Your task to perform on an android device: Clear the cart on ebay.com. Add "beats solo 3" to the cart on ebay.com, then select checkout. Image 0: 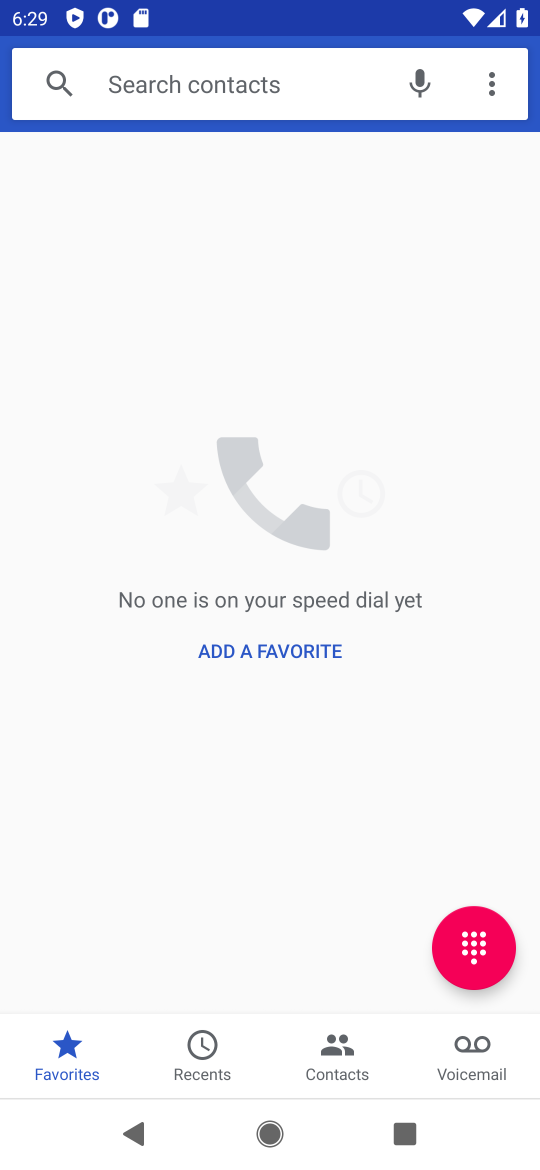
Step 0: press home button
Your task to perform on an android device: Clear the cart on ebay.com. Add "beats solo 3" to the cart on ebay.com, then select checkout. Image 1: 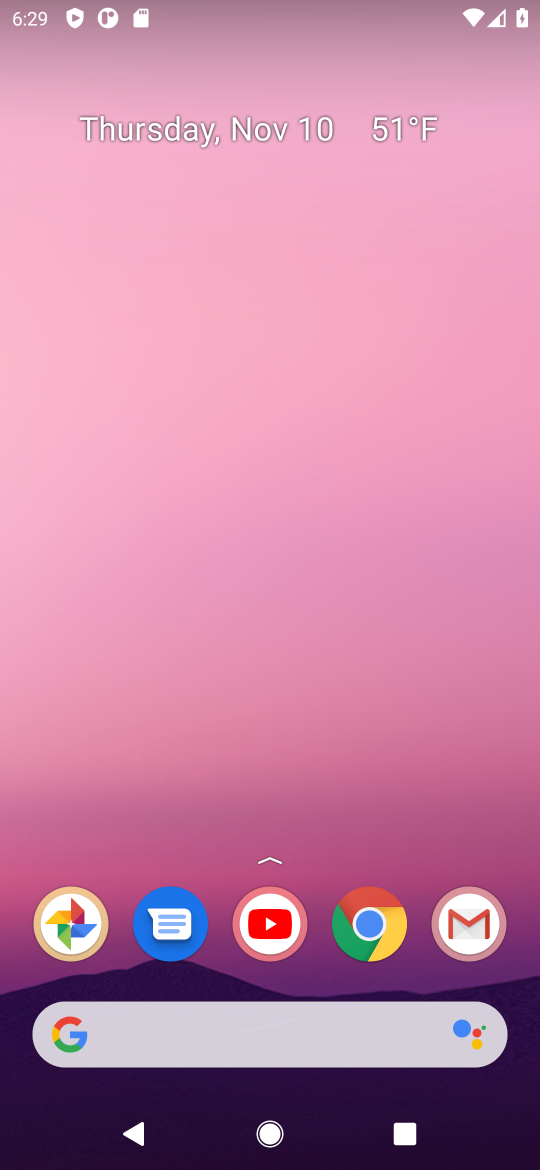
Step 1: click (379, 938)
Your task to perform on an android device: Clear the cart on ebay.com. Add "beats solo 3" to the cart on ebay.com, then select checkout. Image 2: 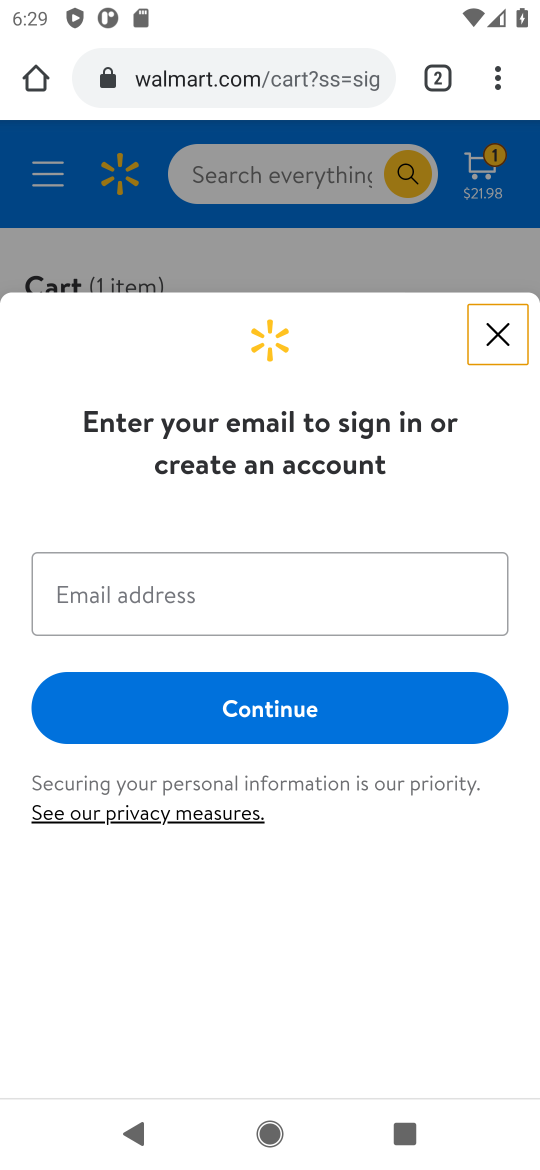
Step 2: click (212, 92)
Your task to perform on an android device: Clear the cart on ebay.com. Add "beats solo 3" to the cart on ebay.com, then select checkout. Image 3: 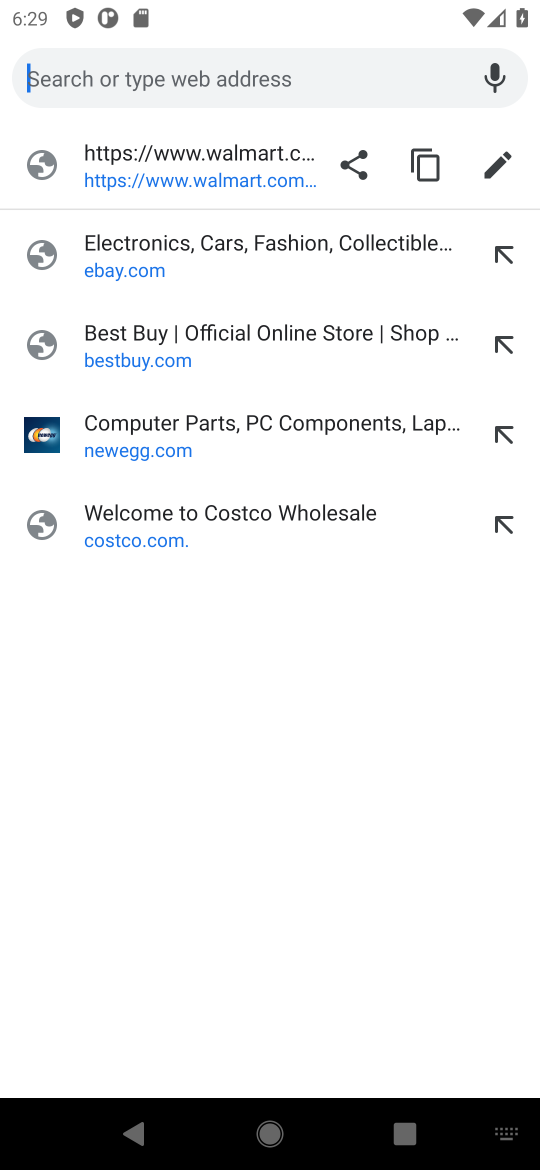
Step 3: click (135, 267)
Your task to perform on an android device: Clear the cart on ebay.com. Add "beats solo 3" to the cart on ebay.com, then select checkout. Image 4: 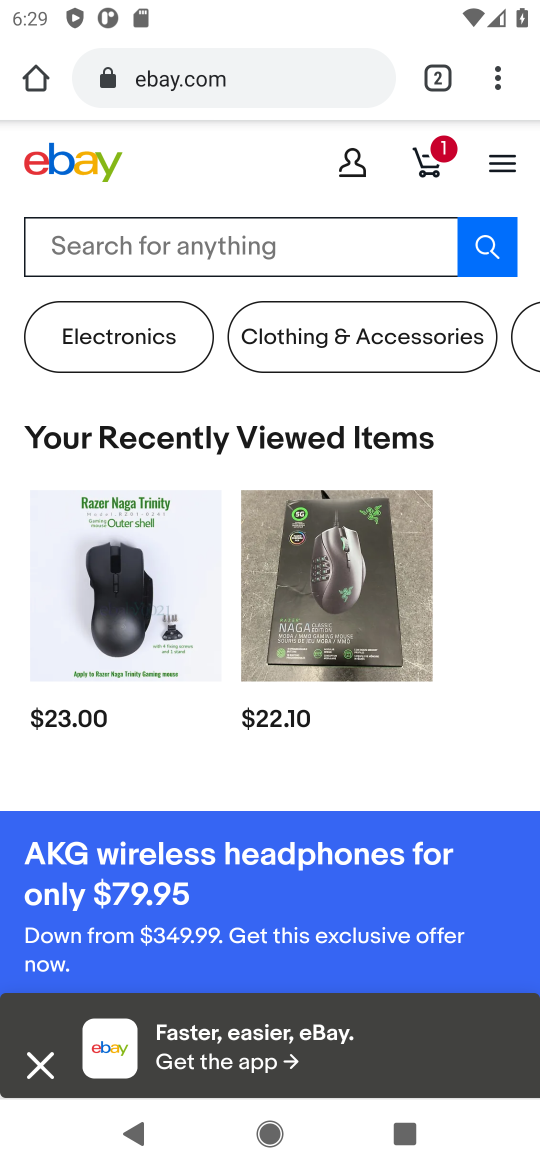
Step 4: click (433, 154)
Your task to perform on an android device: Clear the cart on ebay.com. Add "beats solo 3" to the cart on ebay.com, then select checkout. Image 5: 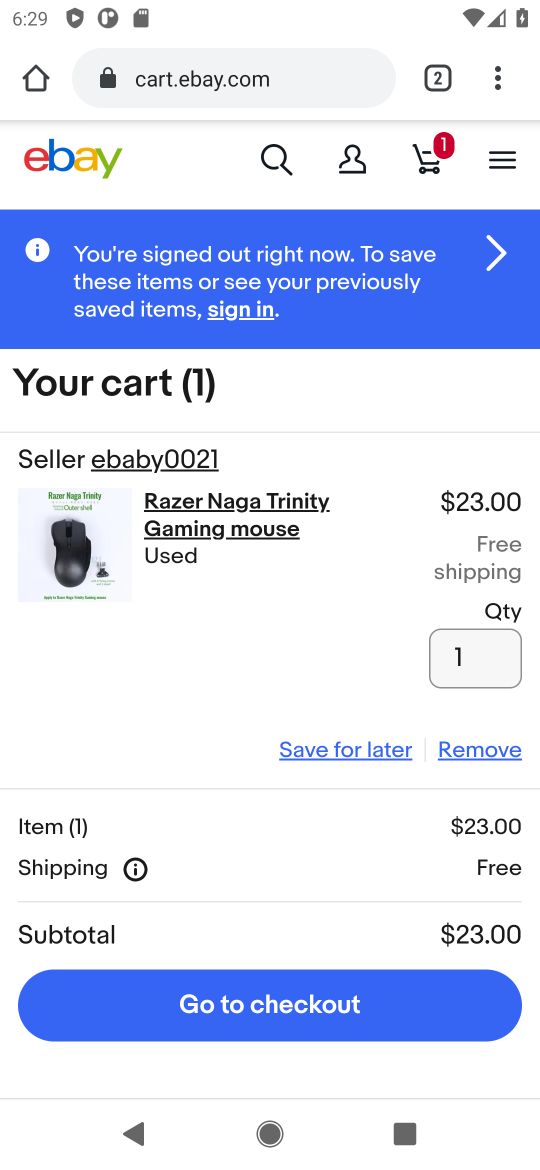
Step 5: click (462, 747)
Your task to perform on an android device: Clear the cart on ebay.com. Add "beats solo 3" to the cart on ebay.com, then select checkout. Image 6: 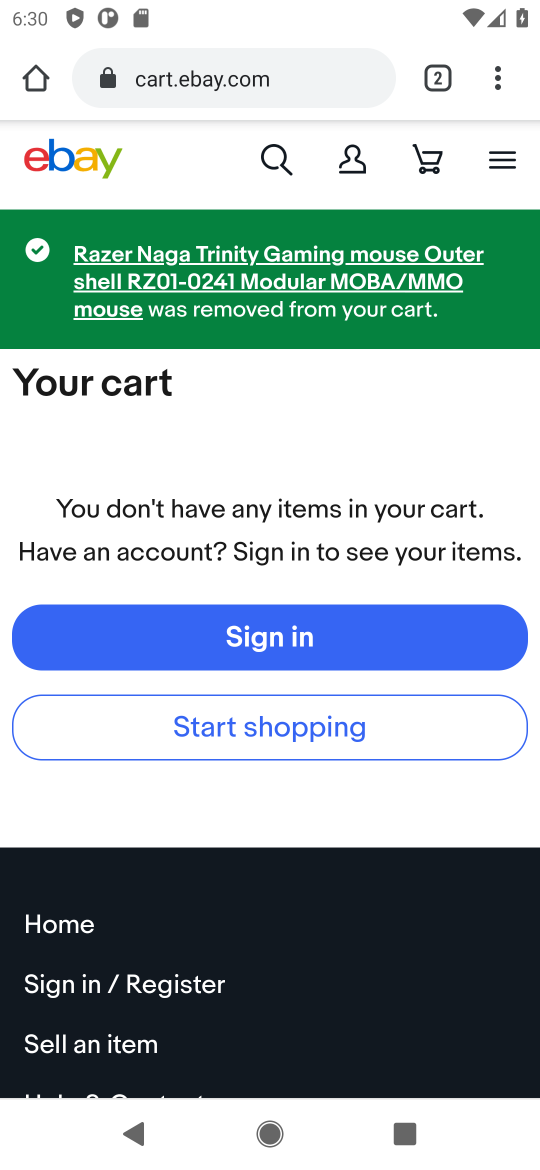
Step 6: click (283, 158)
Your task to perform on an android device: Clear the cart on ebay.com. Add "beats solo 3" to the cart on ebay.com, then select checkout. Image 7: 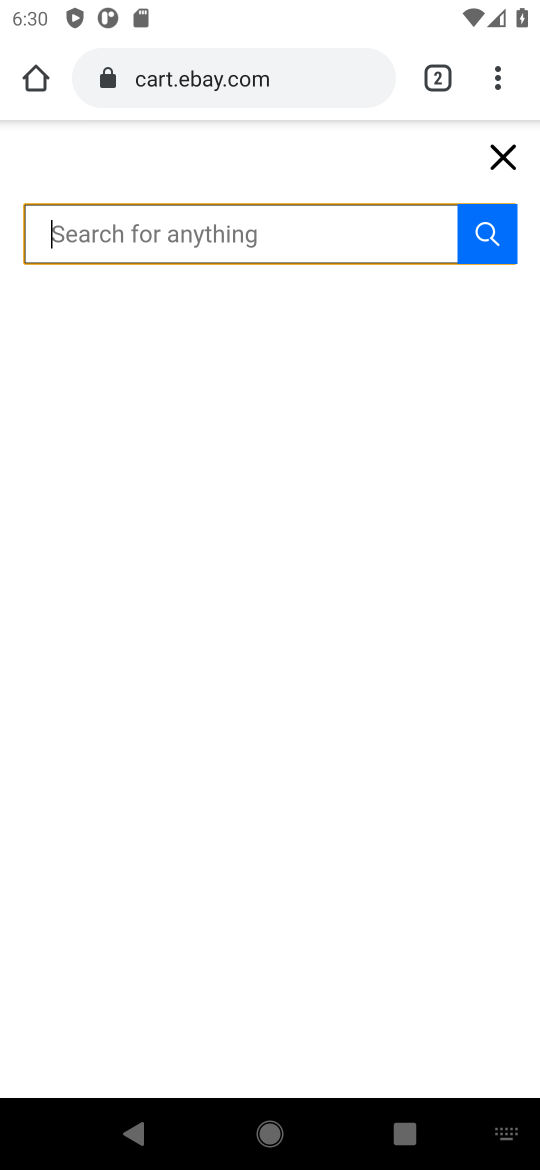
Step 7: type "beats solo 3"
Your task to perform on an android device: Clear the cart on ebay.com. Add "beats solo 3" to the cart on ebay.com, then select checkout. Image 8: 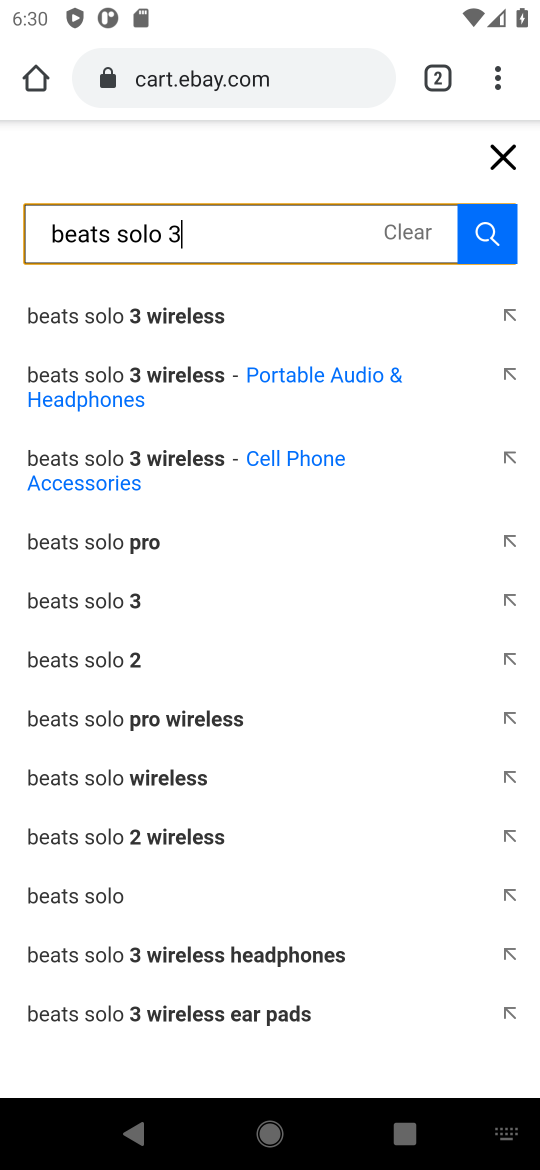
Step 8: click (82, 604)
Your task to perform on an android device: Clear the cart on ebay.com. Add "beats solo 3" to the cart on ebay.com, then select checkout. Image 9: 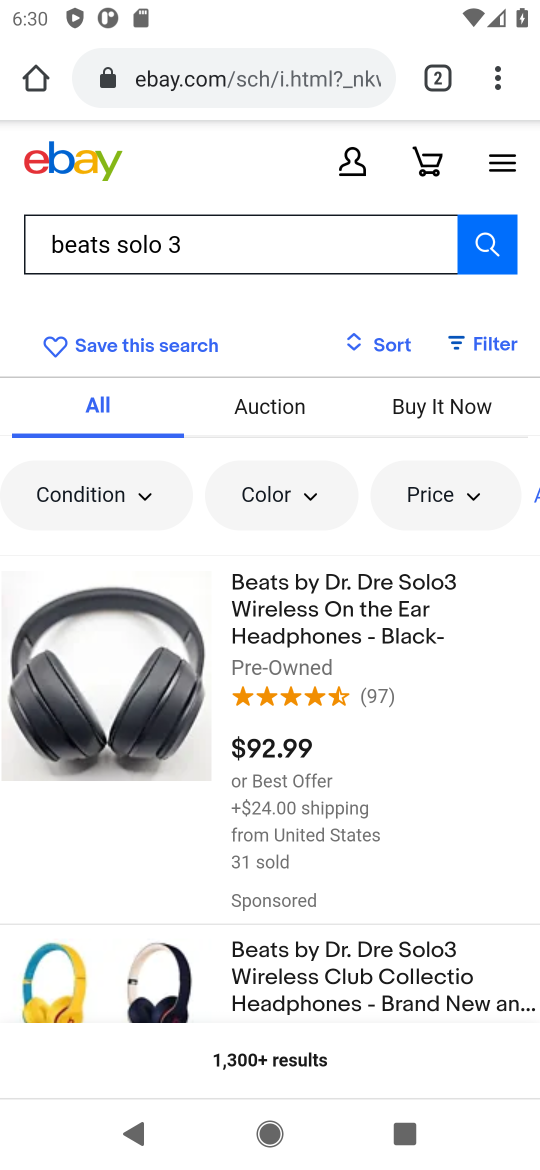
Step 9: click (117, 723)
Your task to perform on an android device: Clear the cart on ebay.com. Add "beats solo 3" to the cart on ebay.com, then select checkout. Image 10: 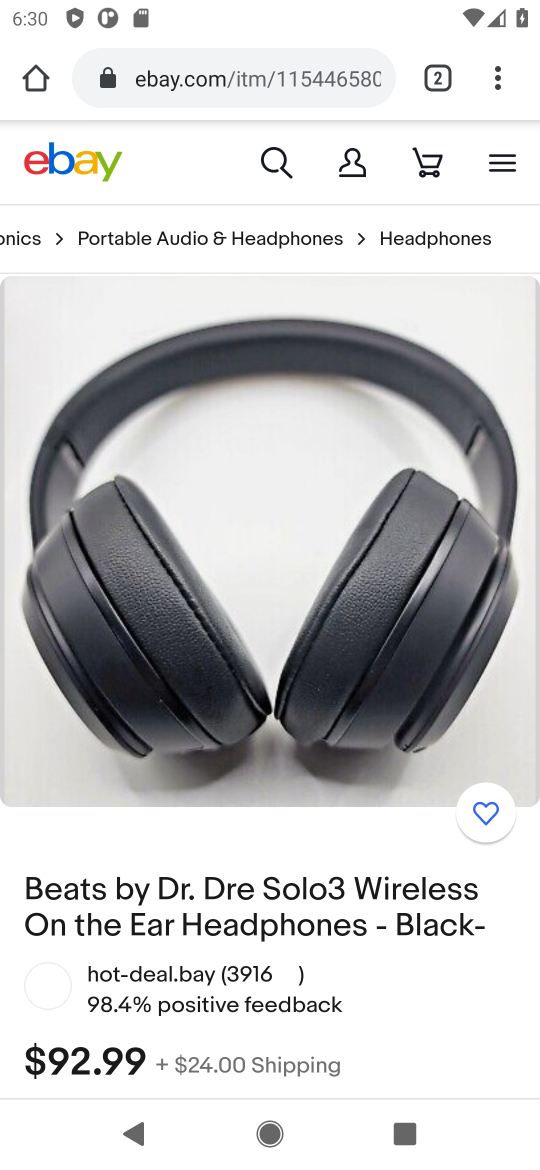
Step 10: drag from (219, 796) to (250, 366)
Your task to perform on an android device: Clear the cart on ebay.com. Add "beats solo 3" to the cart on ebay.com, then select checkout. Image 11: 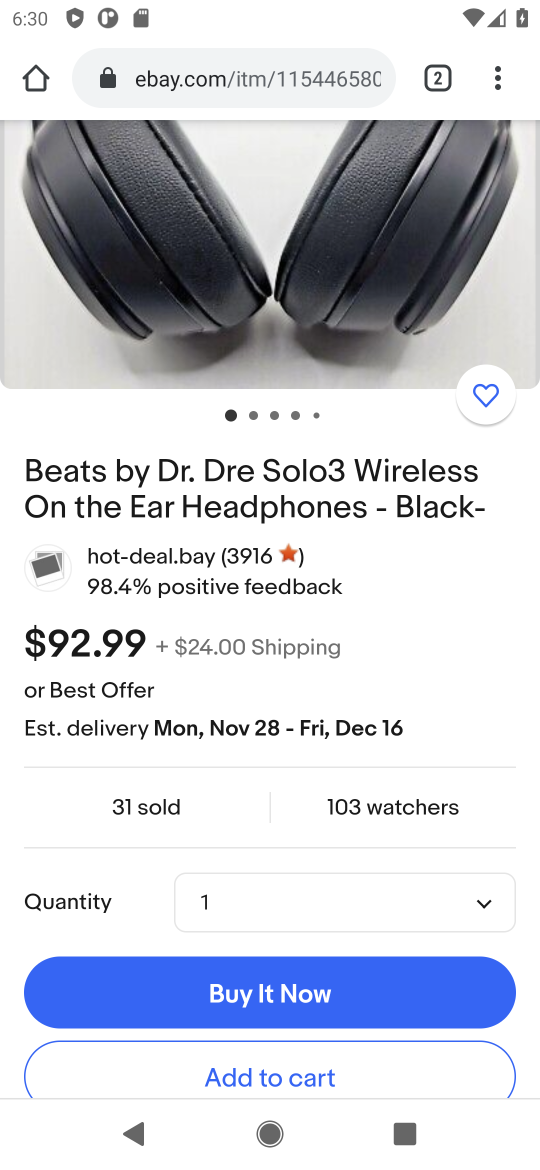
Step 11: drag from (222, 882) to (270, 581)
Your task to perform on an android device: Clear the cart on ebay.com. Add "beats solo 3" to the cart on ebay.com, then select checkout. Image 12: 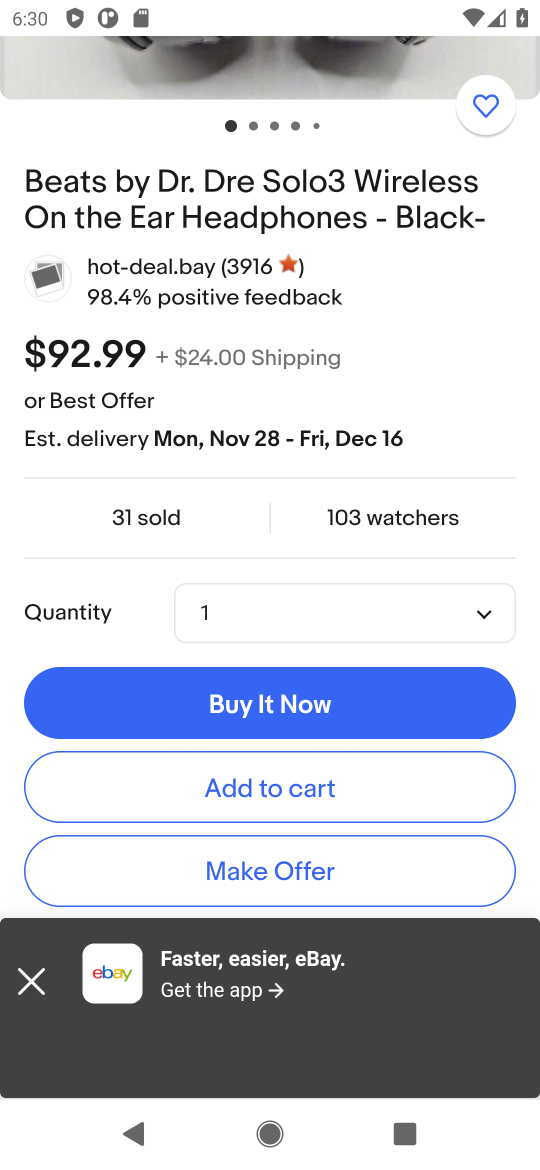
Step 12: click (245, 790)
Your task to perform on an android device: Clear the cart on ebay.com. Add "beats solo 3" to the cart on ebay.com, then select checkout. Image 13: 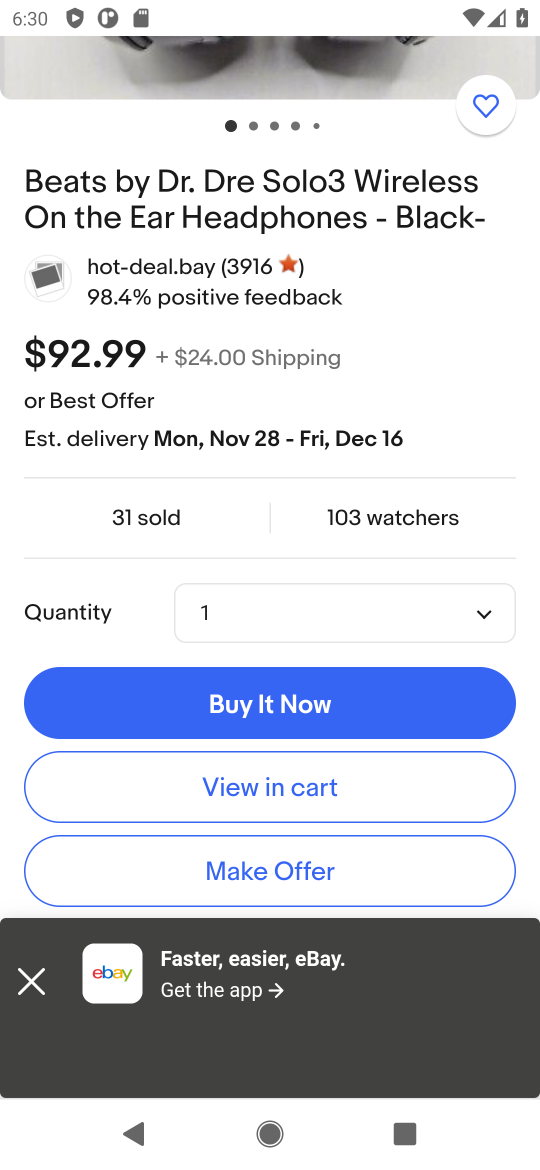
Step 13: click (245, 790)
Your task to perform on an android device: Clear the cart on ebay.com. Add "beats solo 3" to the cart on ebay.com, then select checkout. Image 14: 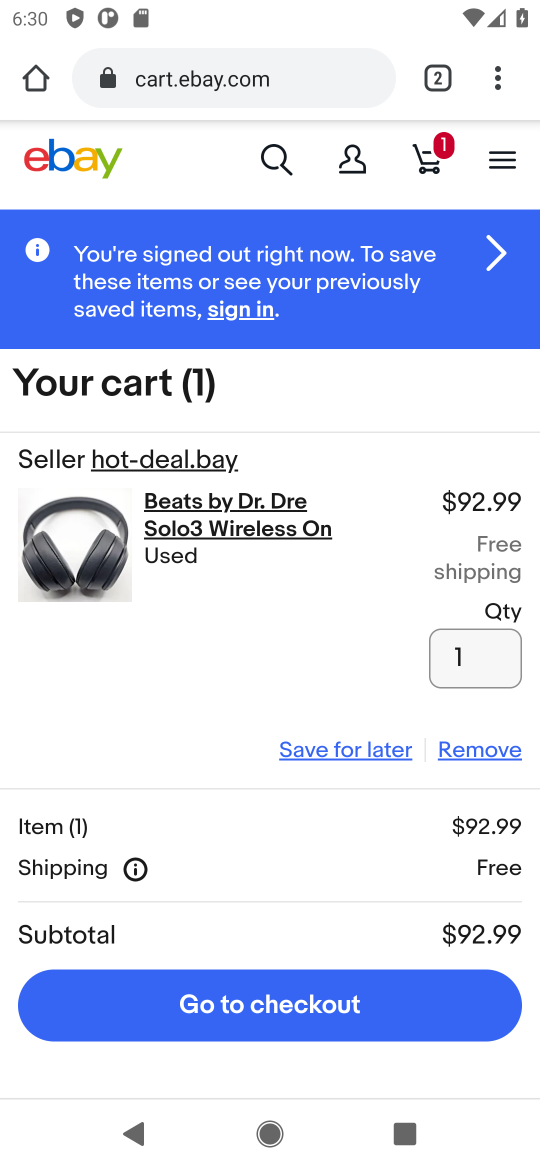
Step 14: click (249, 997)
Your task to perform on an android device: Clear the cart on ebay.com. Add "beats solo 3" to the cart on ebay.com, then select checkout. Image 15: 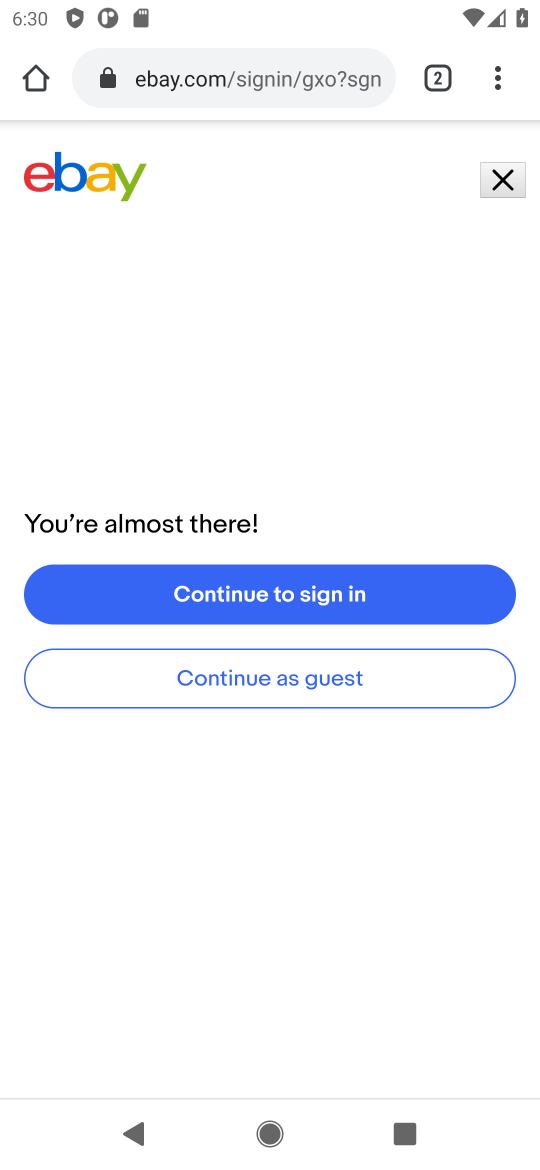
Step 15: task complete